Your task to perform on an android device: Search for Italian restaurants on Maps Image 0: 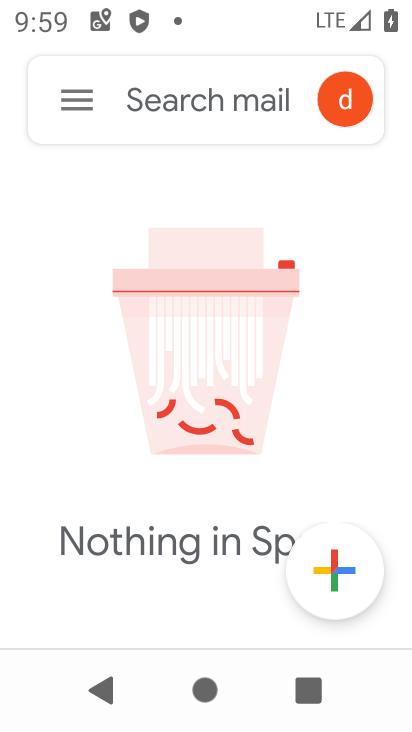
Step 0: press home button
Your task to perform on an android device: Search for Italian restaurants on Maps Image 1: 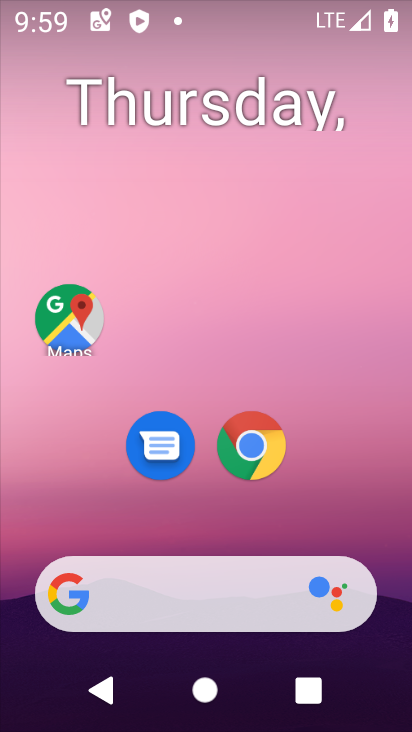
Step 1: click (79, 321)
Your task to perform on an android device: Search for Italian restaurants on Maps Image 2: 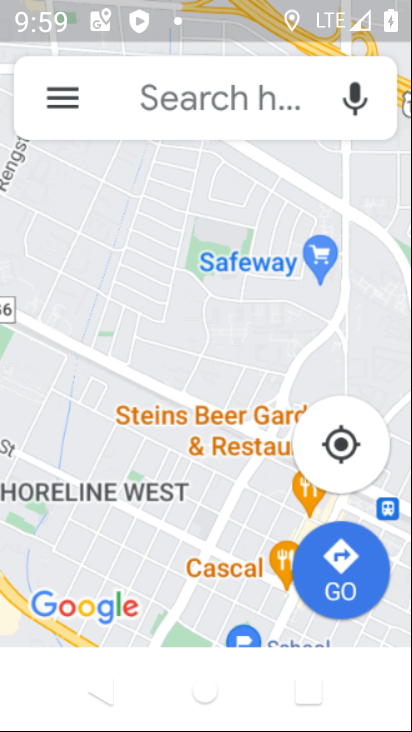
Step 2: click (229, 91)
Your task to perform on an android device: Search for Italian restaurants on Maps Image 3: 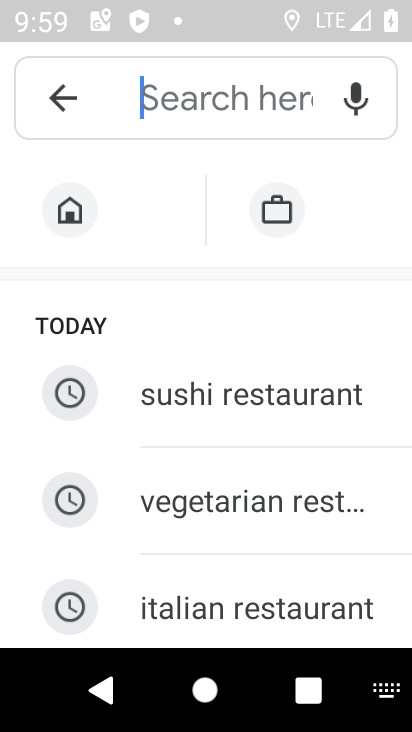
Step 3: click (160, 616)
Your task to perform on an android device: Search for Italian restaurants on Maps Image 4: 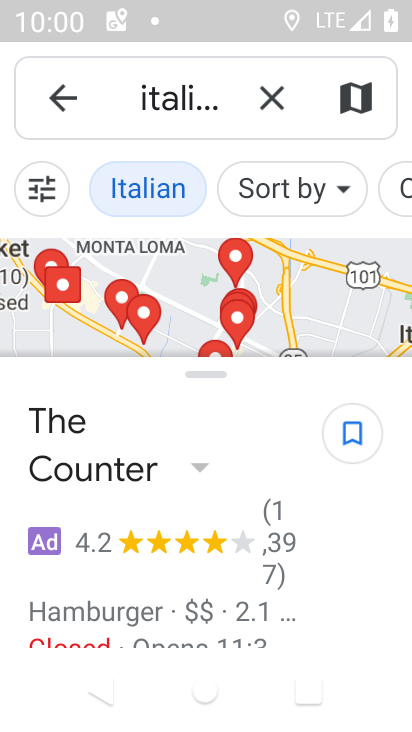
Step 4: task complete